Your task to perform on an android device: Search for macbook pro 13 inch on walmart, select the first entry, and add it to the cart. Image 0: 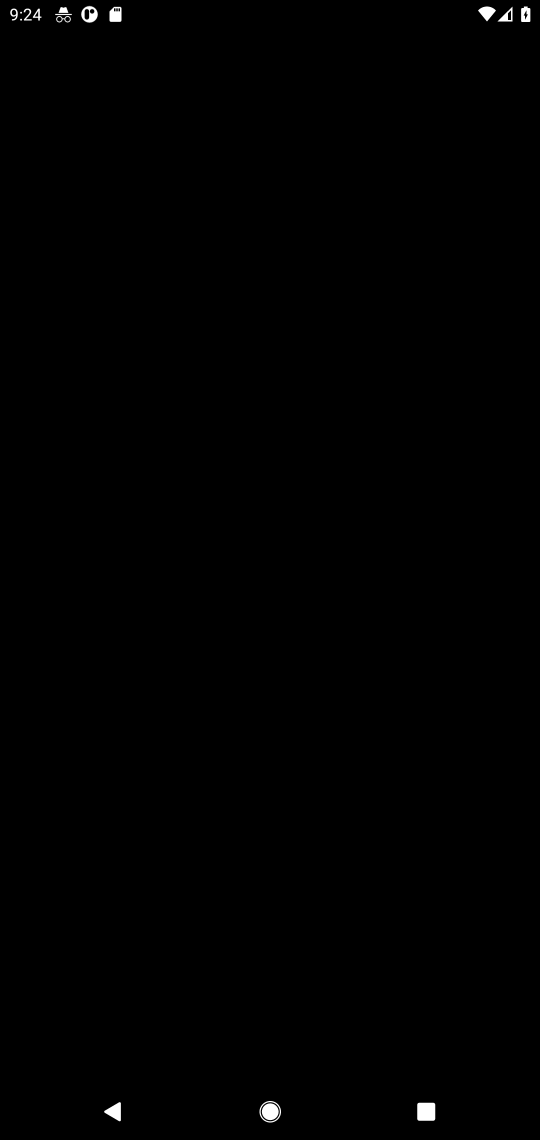
Step 0: press home button
Your task to perform on an android device: Search for macbook pro 13 inch on walmart, select the first entry, and add it to the cart. Image 1: 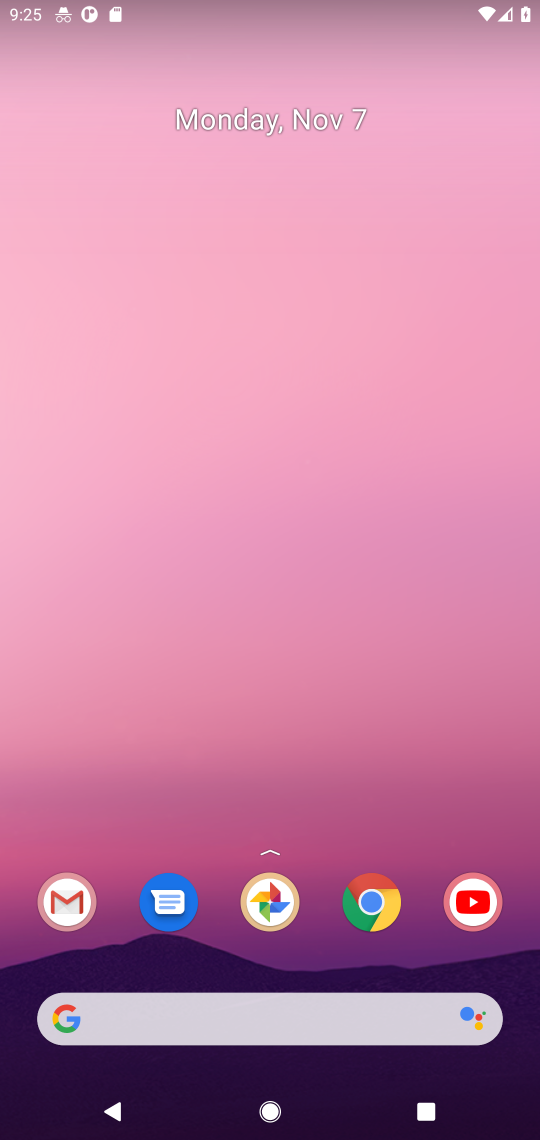
Step 1: click (366, 905)
Your task to perform on an android device: Search for macbook pro 13 inch on walmart, select the first entry, and add it to the cart. Image 2: 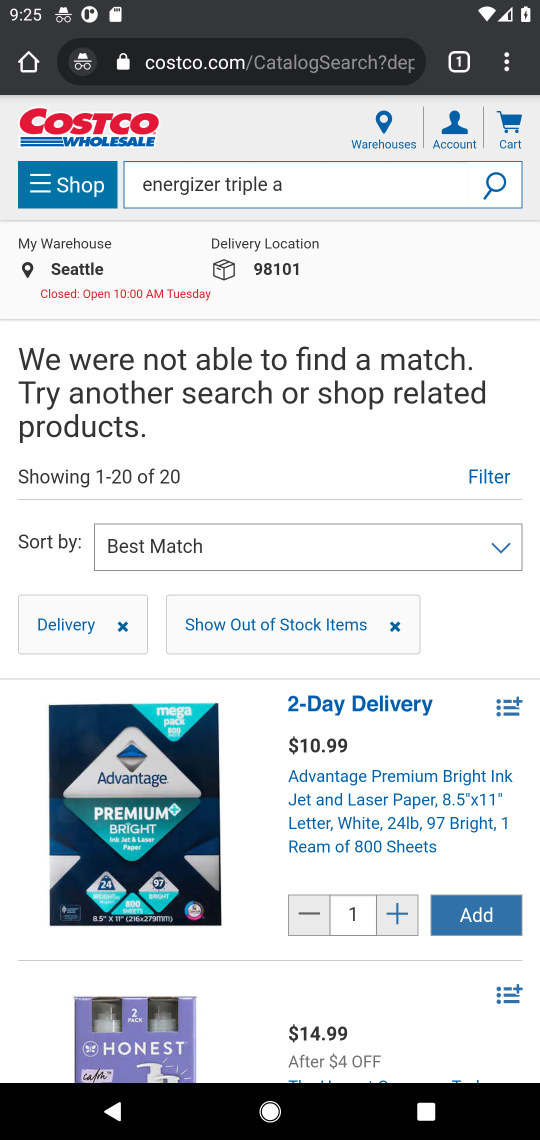
Step 2: click (196, 74)
Your task to perform on an android device: Search for macbook pro 13 inch on walmart, select the first entry, and add it to the cart. Image 3: 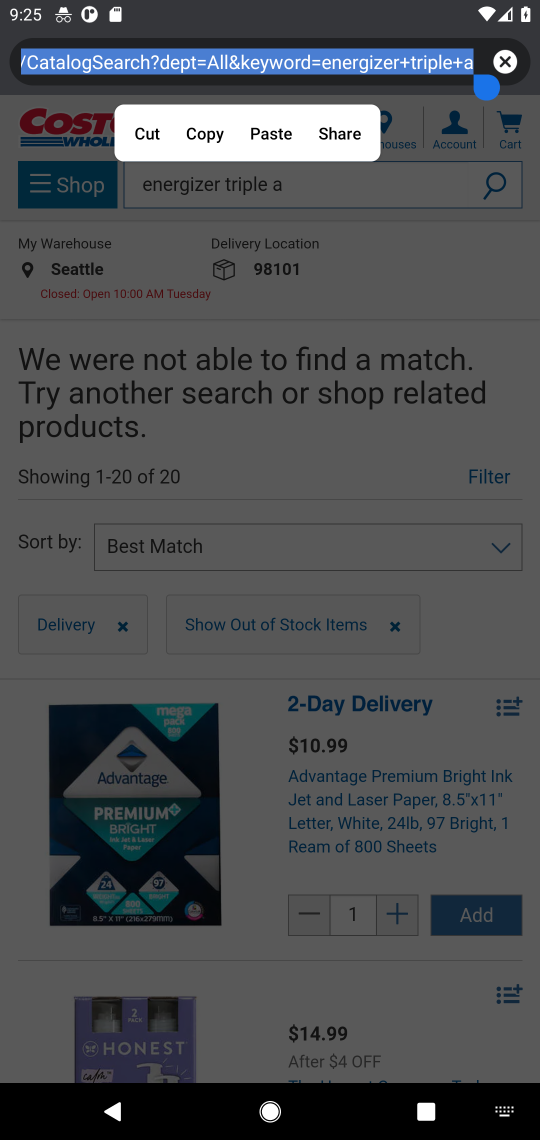
Step 3: type "walmart.com"
Your task to perform on an android device: Search for macbook pro 13 inch on walmart, select the first entry, and add it to the cart. Image 4: 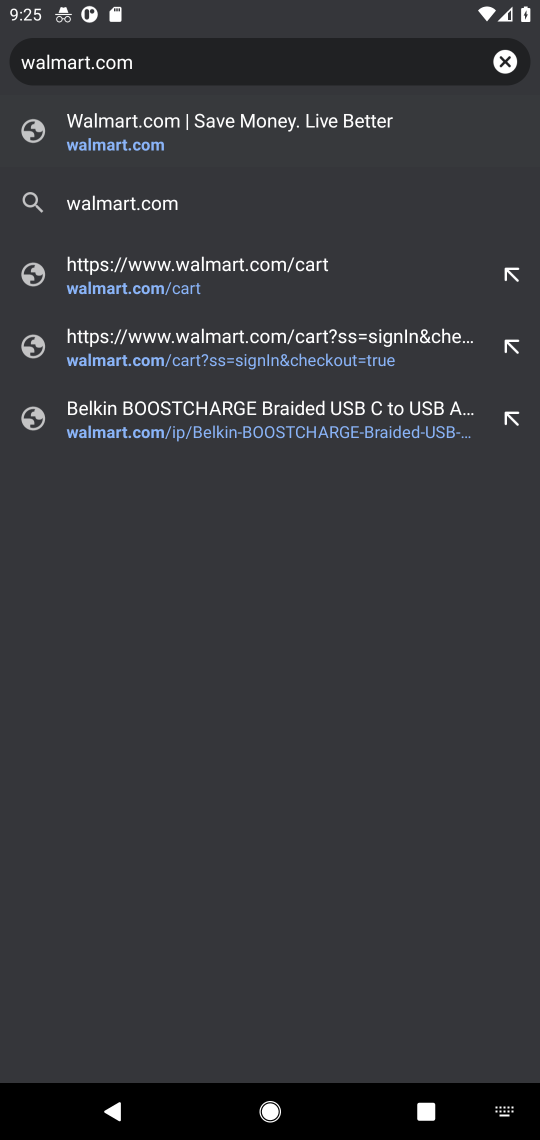
Step 4: click (118, 120)
Your task to perform on an android device: Search for macbook pro 13 inch on walmart, select the first entry, and add it to the cart. Image 5: 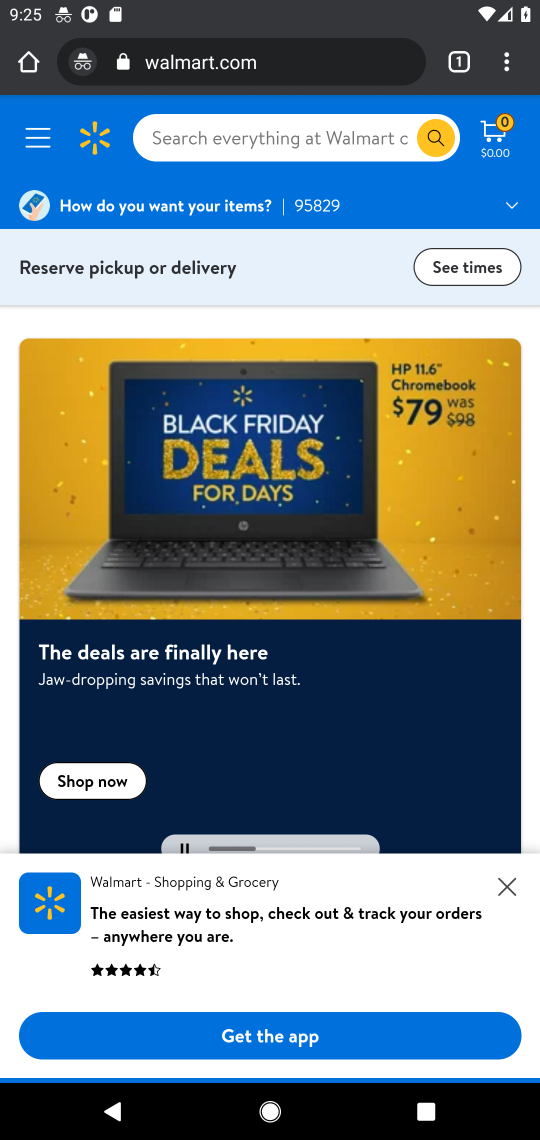
Step 5: click (244, 139)
Your task to perform on an android device: Search for macbook pro 13 inch on walmart, select the first entry, and add it to the cart. Image 6: 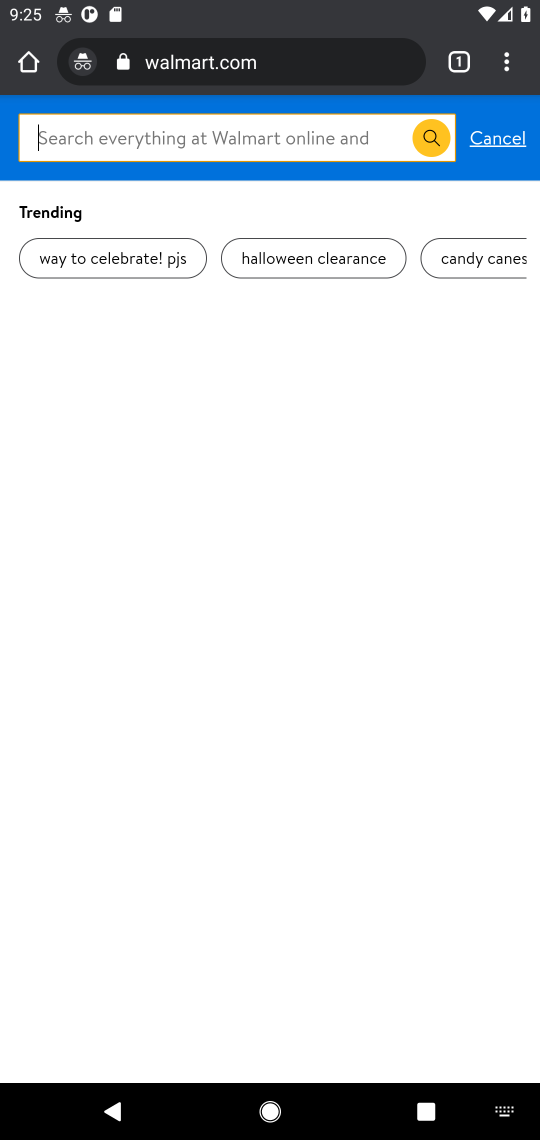
Step 6: type "macbook pro 13 inch"
Your task to perform on an android device: Search for macbook pro 13 inch on walmart, select the first entry, and add it to the cart. Image 7: 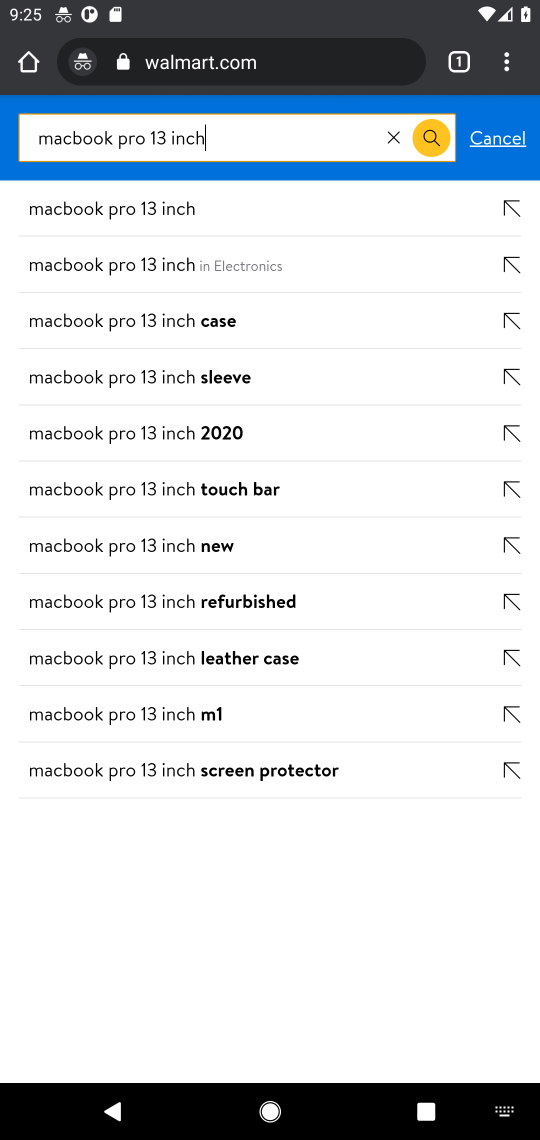
Step 7: click (83, 210)
Your task to perform on an android device: Search for macbook pro 13 inch on walmart, select the first entry, and add it to the cart. Image 8: 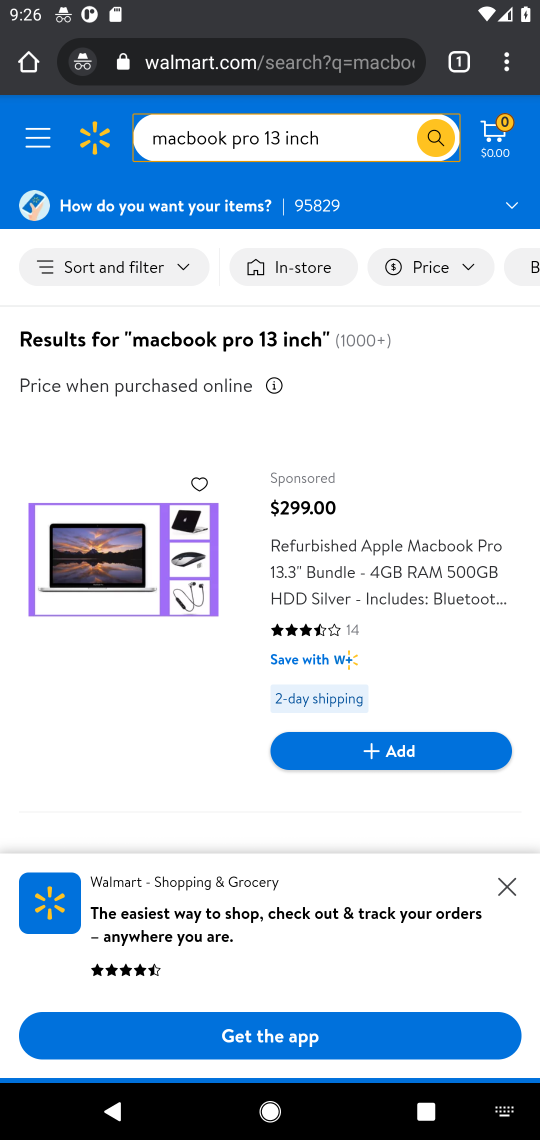
Step 8: task complete